Your task to perform on an android device: see tabs open on other devices in the chrome app Image 0: 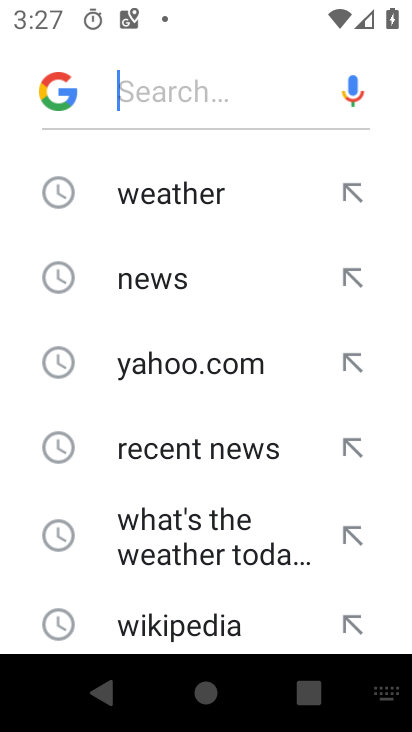
Step 0: press back button
Your task to perform on an android device: see tabs open on other devices in the chrome app Image 1: 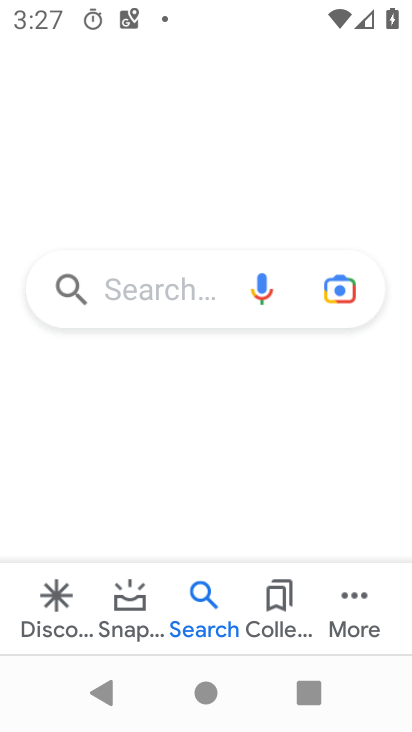
Step 1: press back button
Your task to perform on an android device: see tabs open on other devices in the chrome app Image 2: 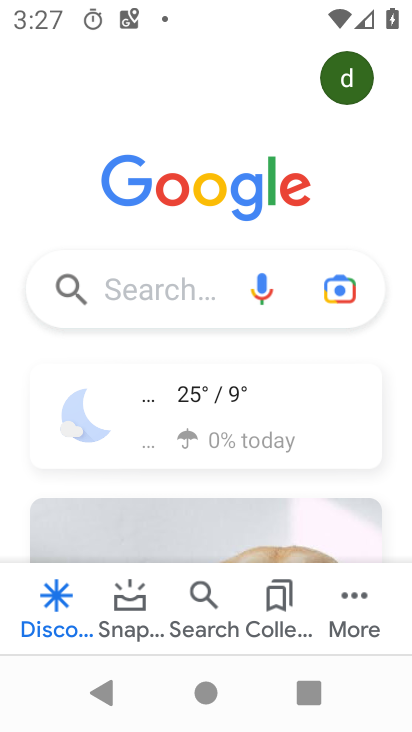
Step 2: press back button
Your task to perform on an android device: see tabs open on other devices in the chrome app Image 3: 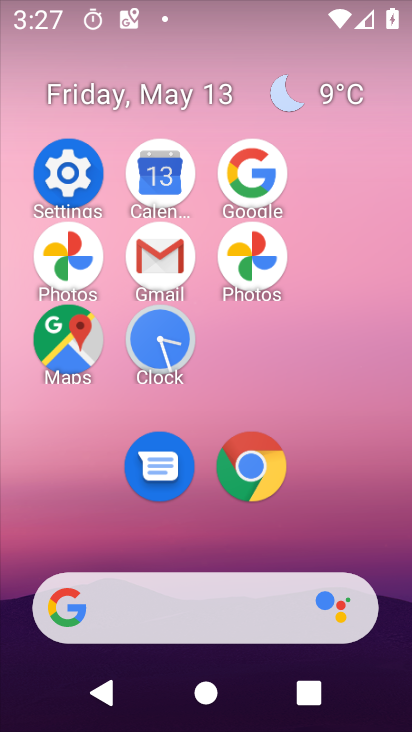
Step 3: click (237, 459)
Your task to perform on an android device: see tabs open on other devices in the chrome app Image 4: 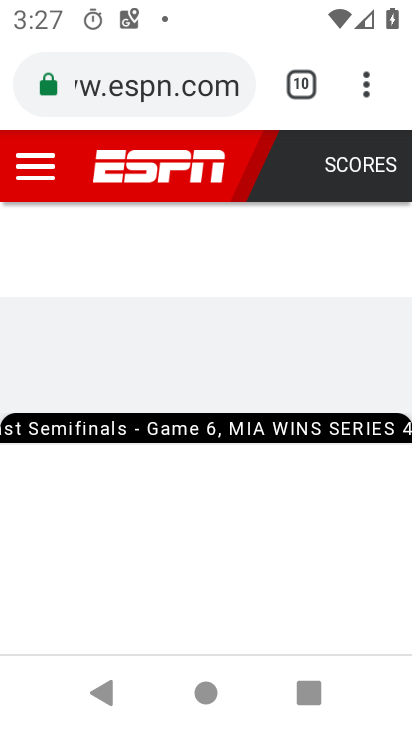
Step 4: click (293, 89)
Your task to perform on an android device: see tabs open on other devices in the chrome app Image 5: 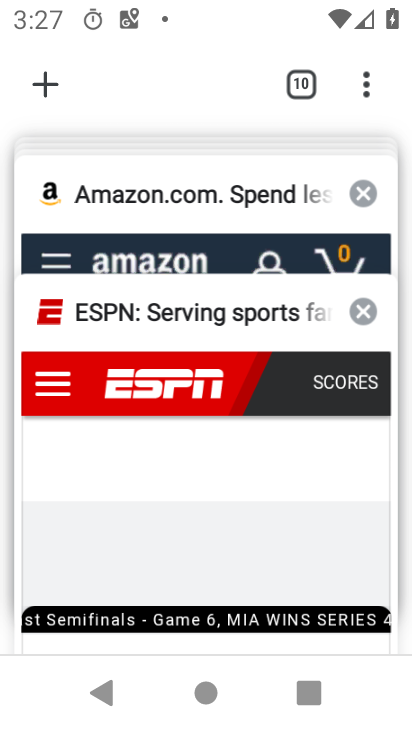
Step 5: click (43, 68)
Your task to perform on an android device: see tabs open on other devices in the chrome app Image 6: 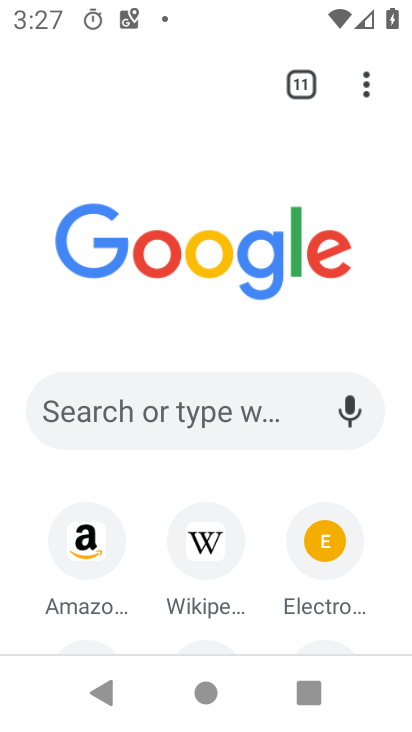
Step 6: click (359, 86)
Your task to perform on an android device: see tabs open on other devices in the chrome app Image 7: 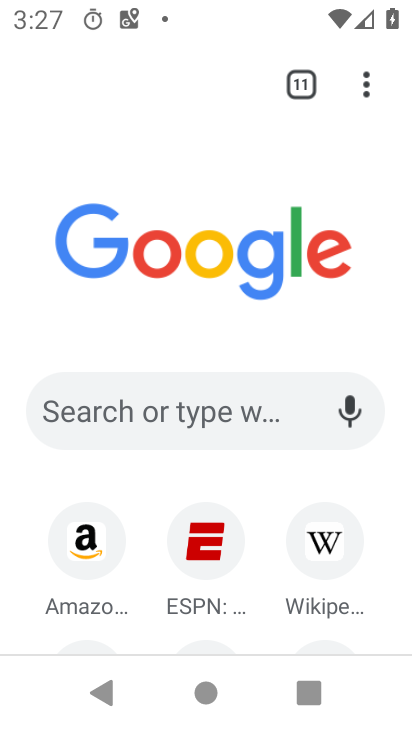
Step 7: click (374, 92)
Your task to perform on an android device: see tabs open on other devices in the chrome app Image 8: 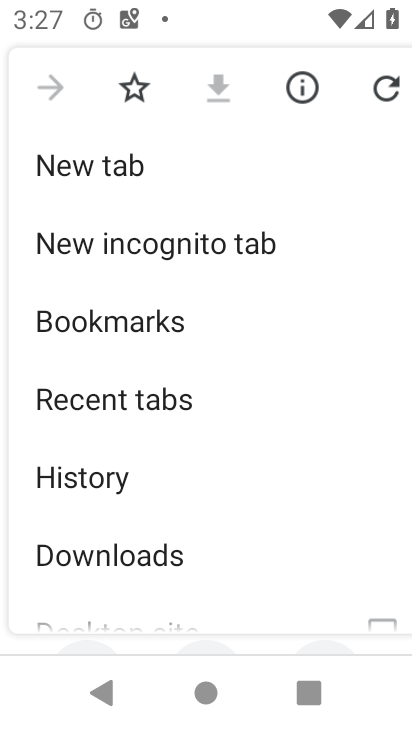
Step 8: click (223, 389)
Your task to perform on an android device: see tabs open on other devices in the chrome app Image 9: 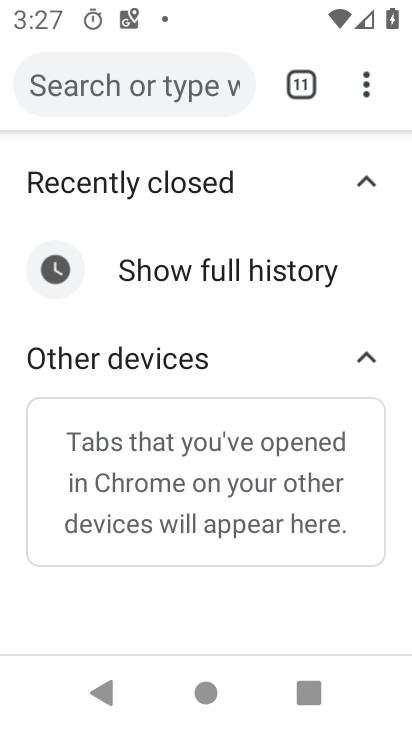
Step 9: task complete